Your task to perform on an android device: Open Google Chrome and click the shortcut for Amazon.com Image 0: 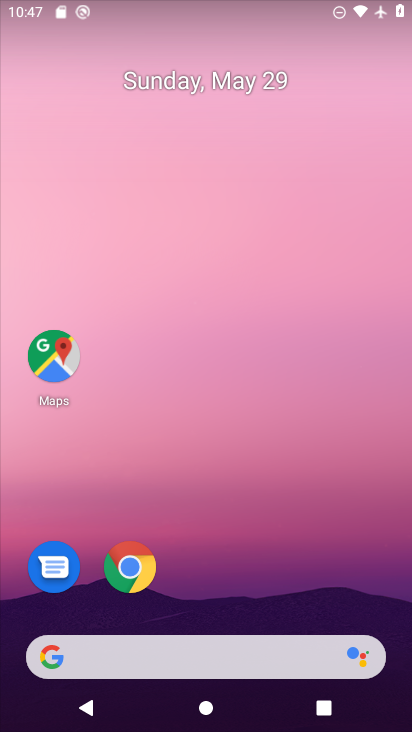
Step 0: click (133, 566)
Your task to perform on an android device: Open Google Chrome and click the shortcut for Amazon.com Image 1: 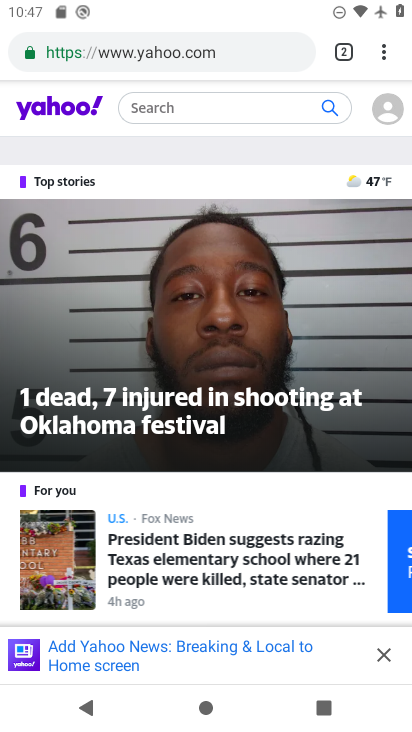
Step 1: click (382, 47)
Your task to perform on an android device: Open Google Chrome and click the shortcut for Amazon.com Image 2: 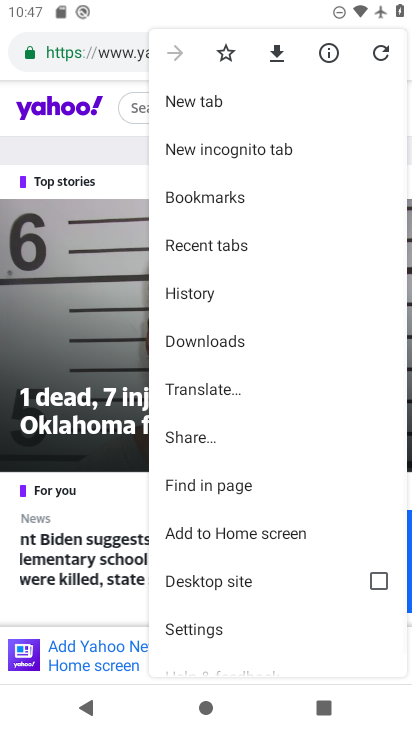
Step 2: click (182, 92)
Your task to perform on an android device: Open Google Chrome and click the shortcut for Amazon.com Image 3: 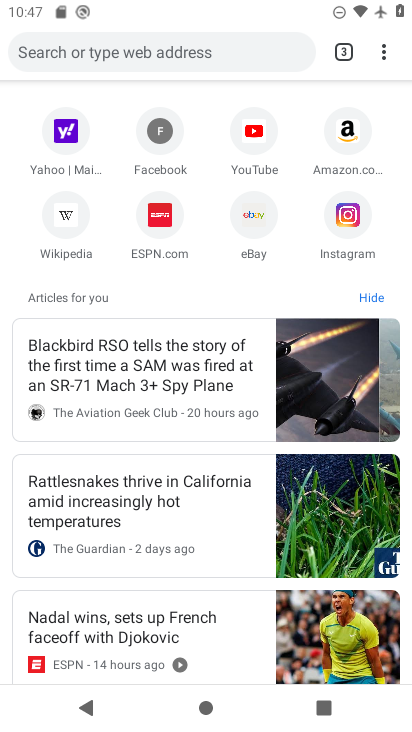
Step 3: click (351, 130)
Your task to perform on an android device: Open Google Chrome and click the shortcut for Amazon.com Image 4: 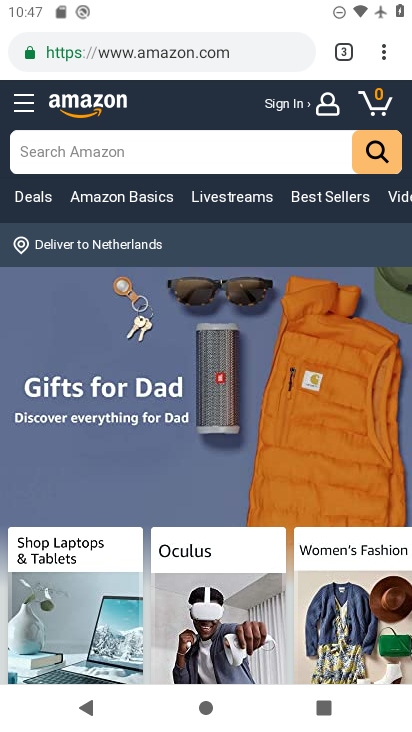
Step 4: task complete